Your task to perform on an android device: turn off smart reply in the gmail app Image 0: 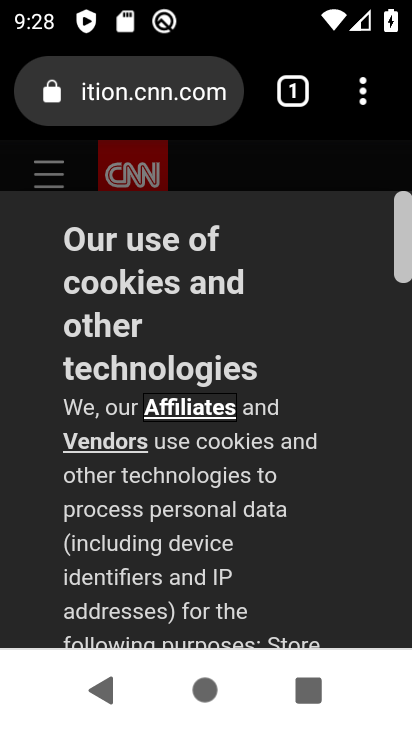
Step 0: press home button
Your task to perform on an android device: turn off smart reply in the gmail app Image 1: 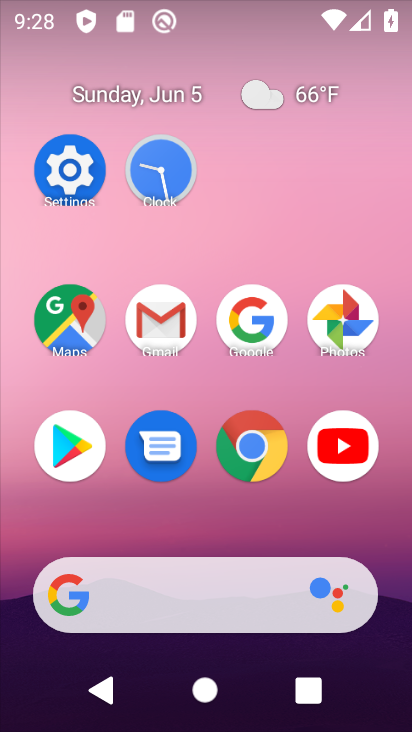
Step 1: click (168, 312)
Your task to perform on an android device: turn off smart reply in the gmail app Image 2: 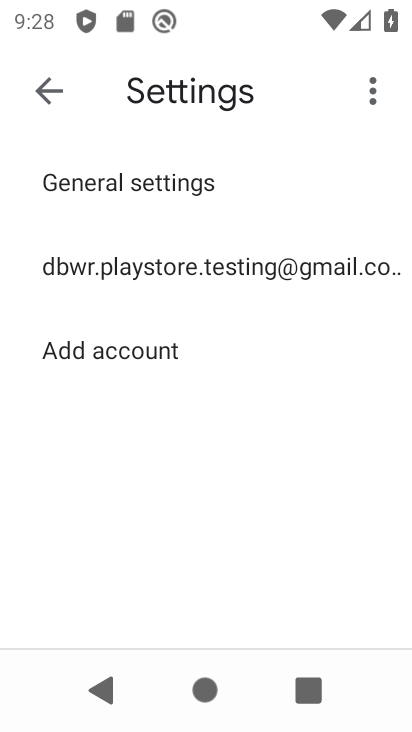
Step 2: click (51, 90)
Your task to perform on an android device: turn off smart reply in the gmail app Image 3: 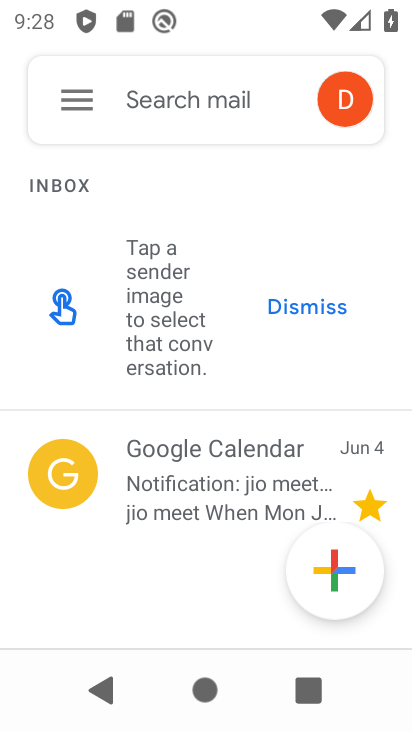
Step 3: click (58, 104)
Your task to perform on an android device: turn off smart reply in the gmail app Image 4: 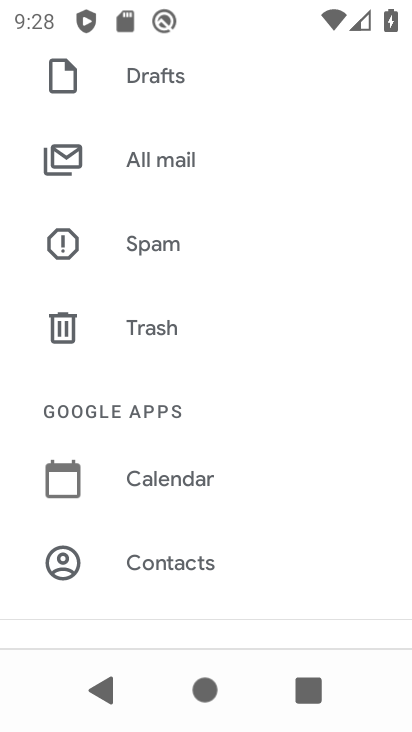
Step 4: drag from (238, 530) to (216, 221)
Your task to perform on an android device: turn off smart reply in the gmail app Image 5: 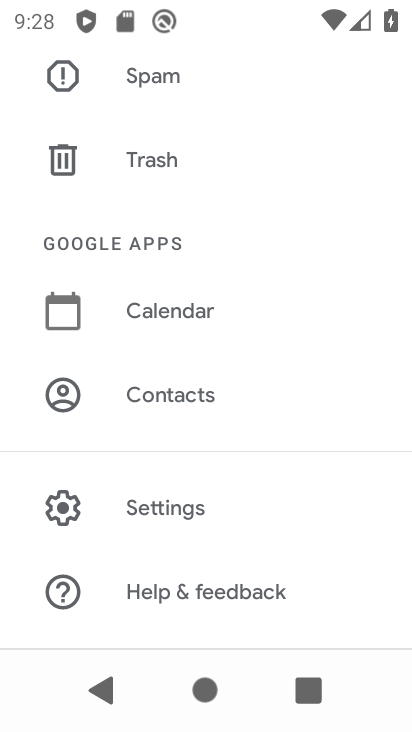
Step 5: click (199, 507)
Your task to perform on an android device: turn off smart reply in the gmail app Image 6: 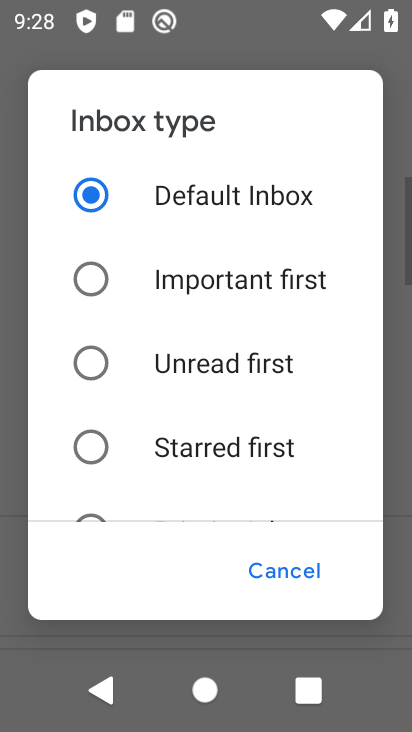
Step 6: click (307, 571)
Your task to perform on an android device: turn off smart reply in the gmail app Image 7: 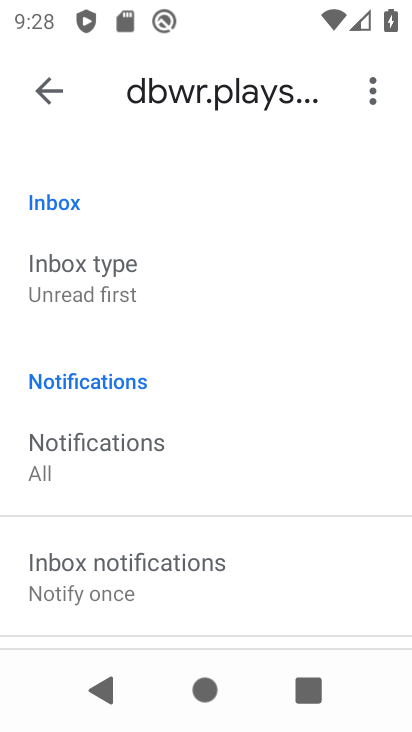
Step 7: task complete